Your task to perform on an android device: allow notifications from all sites in the chrome app Image 0: 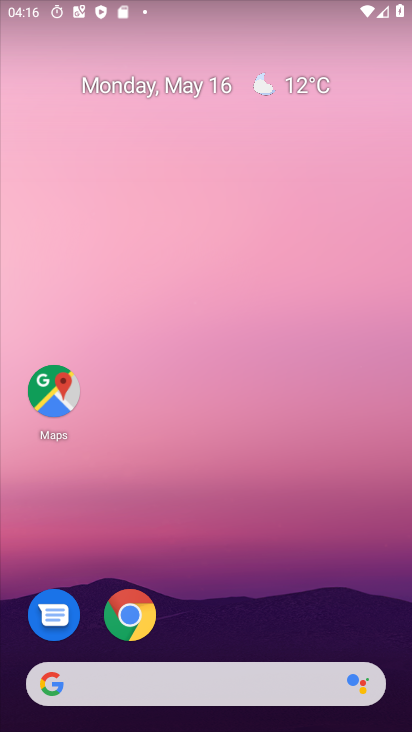
Step 0: drag from (277, 310) to (166, 53)
Your task to perform on an android device: allow notifications from all sites in the chrome app Image 1: 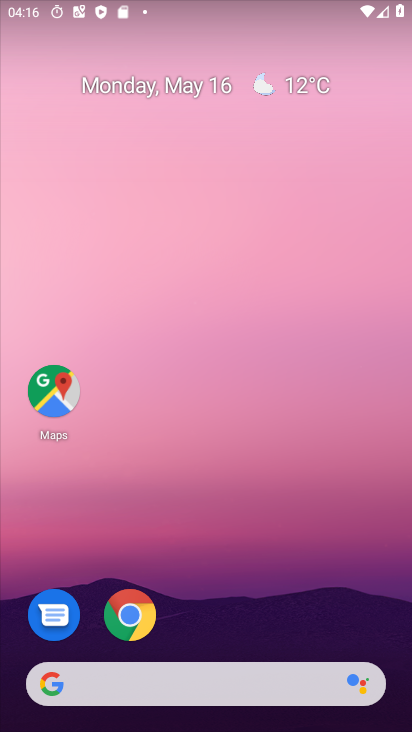
Step 1: drag from (197, 638) to (85, 18)
Your task to perform on an android device: allow notifications from all sites in the chrome app Image 2: 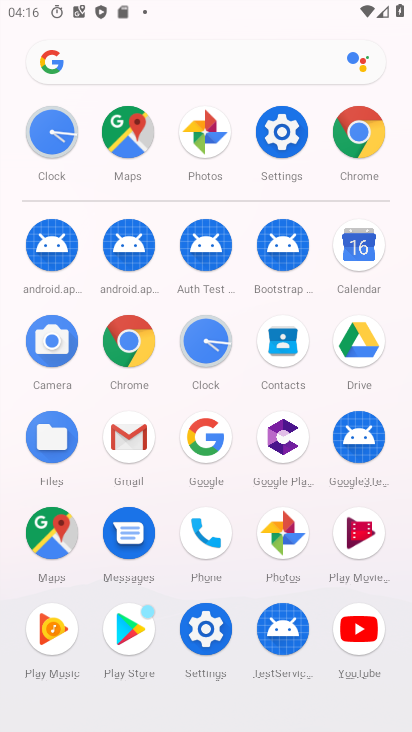
Step 2: click (142, 154)
Your task to perform on an android device: allow notifications from all sites in the chrome app Image 3: 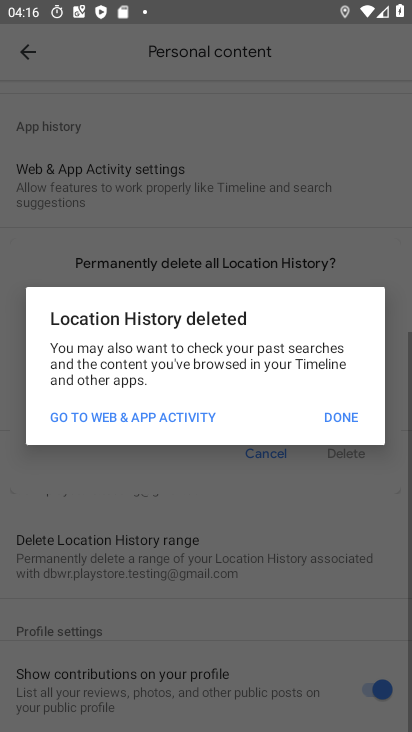
Step 3: click (339, 420)
Your task to perform on an android device: allow notifications from all sites in the chrome app Image 4: 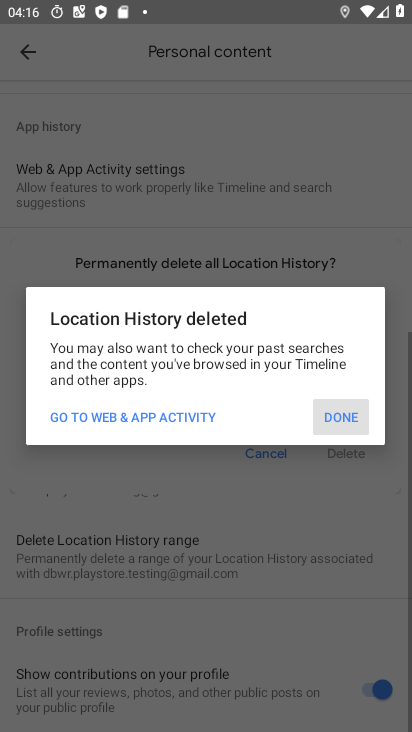
Step 4: click (341, 418)
Your task to perform on an android device: allow notifications from all sites in the chrome app Image 5: 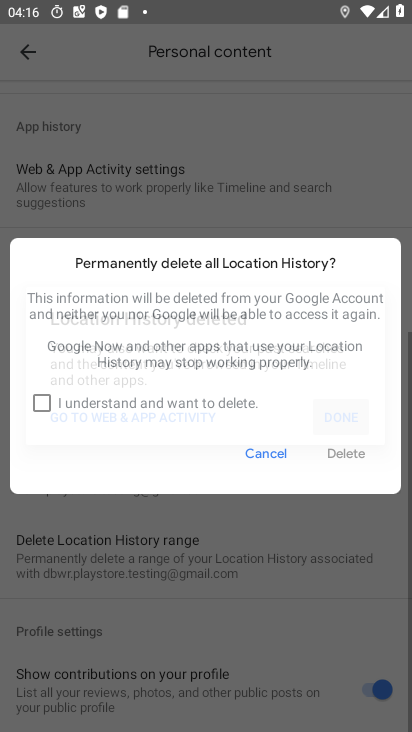
Step 5: click (341, 417)
Your task to perform on an android device: allow notifications from all sites in the chrome app Image 6: 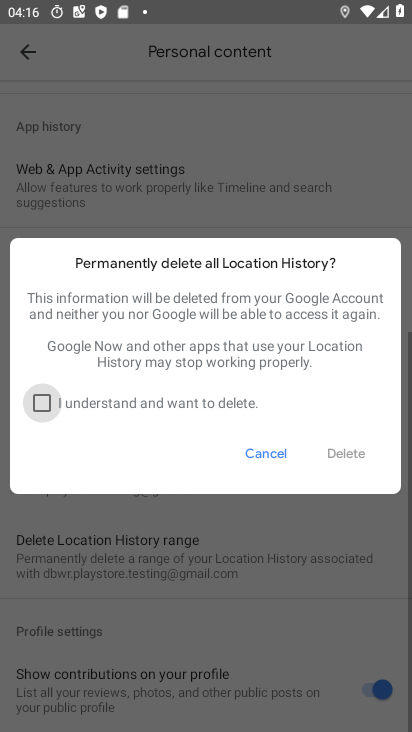
Step 6: click (341, 414)
Your task to perform on an android device: allow notifications from all sites in the chrome app Image 7: 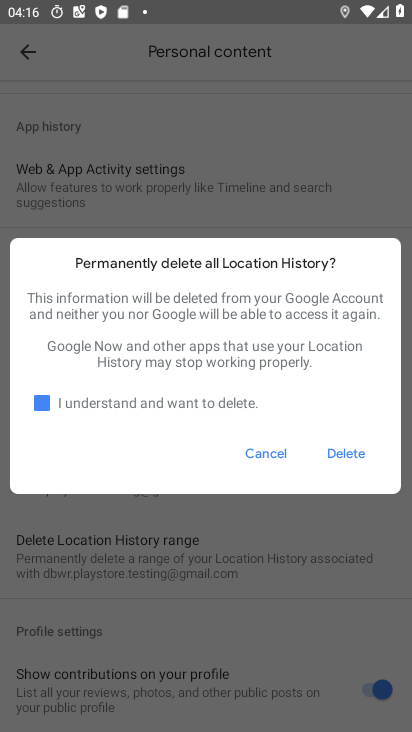
Step 7: click (341, 412)
Your task to perform on an android device: allow notifications from all sites in the chrome app Image 8: 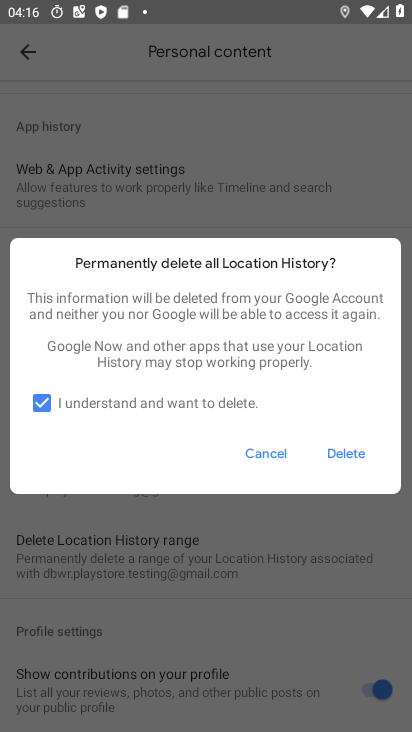
Step 8: click (362, 450)
Your task to perform on an android device: allow notifications from all sites in the chrome app Image 9: 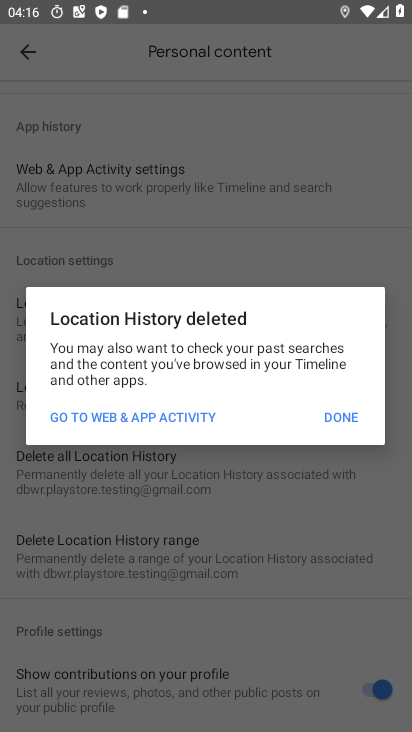
Step 9: click (334, 427)
Your task to perform on an android device: allow notifications from all sites in the chrome app Image 10: 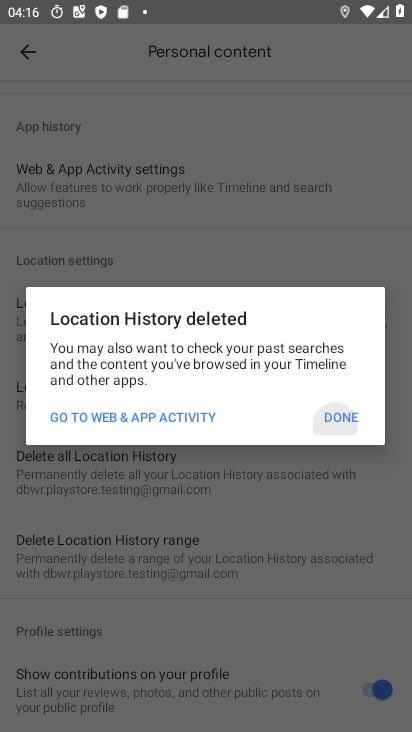
Step 10: click (339, 418)
Your task to perform on an android device: allow notifications from all sites in the chrome app Image 11: 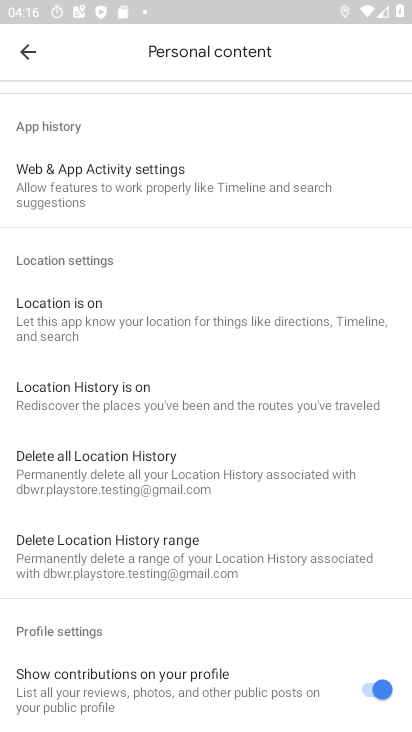
Step 11: click (339, 418)
Your task to perform on an android device: allow notifications from all sites in the chrome app Image 12: 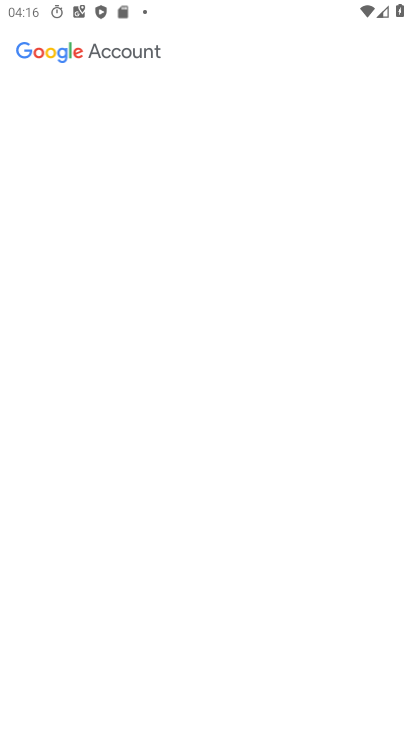
Step 12: press back button
Your task to perform on an android device: allow notifications from all sites in the chrome app Image 13: 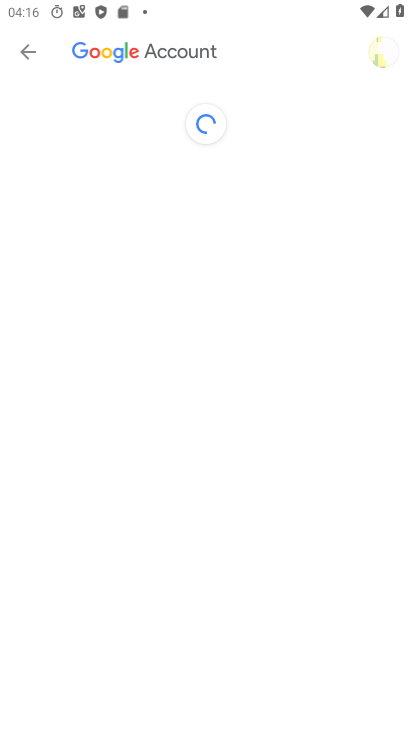
Step 13: press back button
Your task to perform on an android device: allow notifications from all sites in the chrome app Image 14: 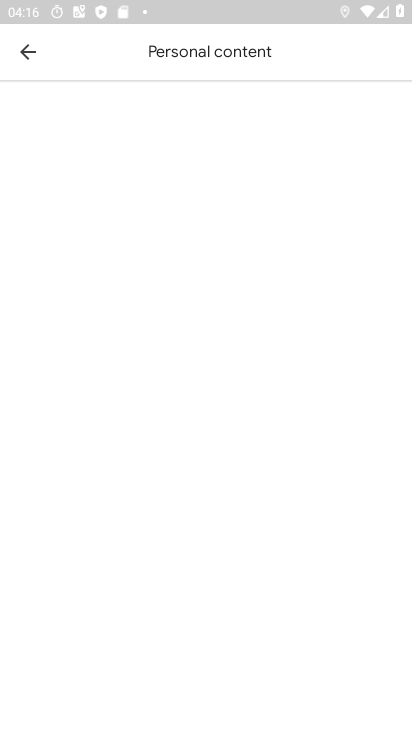
Step 14: click (29, 54)
Your task to perform on an android device: allow notifications from all sites in the chrome app Image 15: 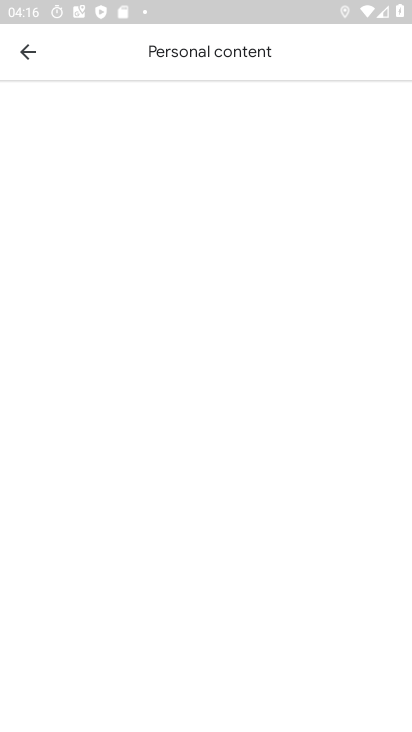
Step 15: click (29, 53)
Your task to perform on an android device: allow notifications from all sites in the chrome app Image 16: 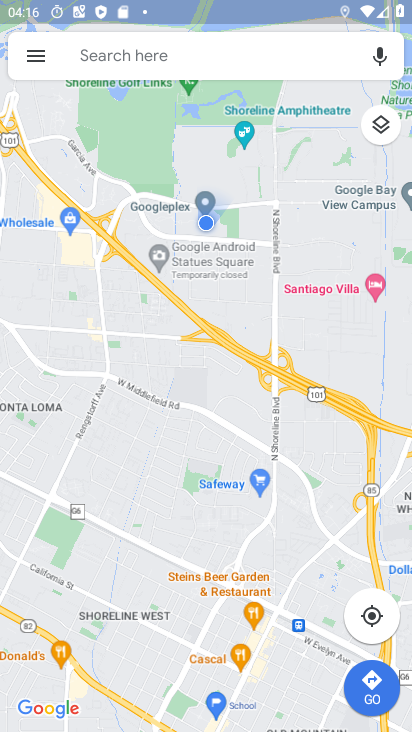
Step 16: click (46, 48)
Your task to perform on an android device: allow notifications from all sites in the chrome app Image 17: 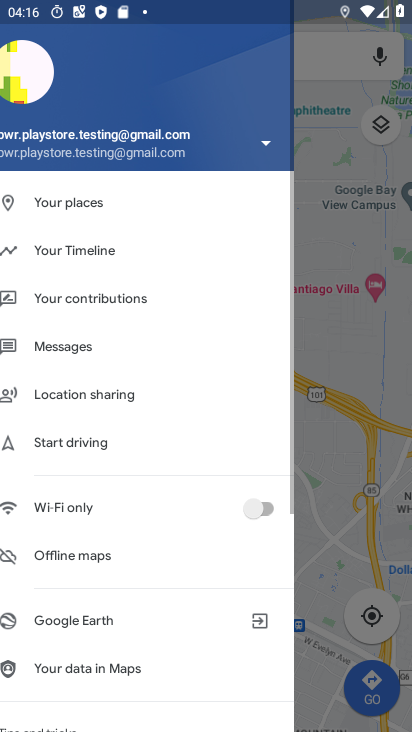
Step 17: click (36, 55)
Your task to perform on an android device: allow notifications from all sites in the chrome app Image 18: 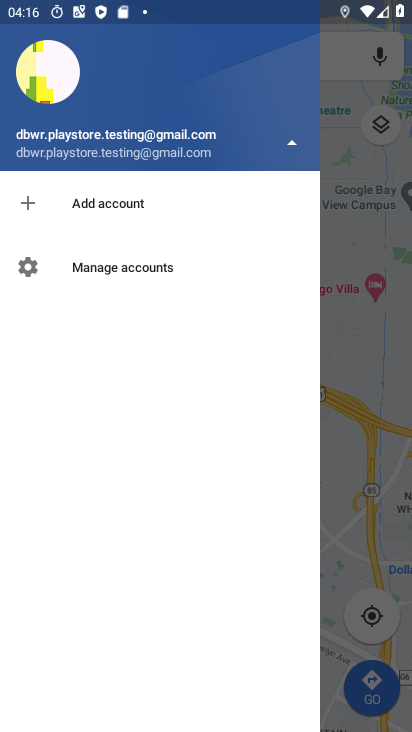
Step 18: click (113, 258)
Your task to perform on an android device: allow notifications from all sites in the chrome app Image 19: 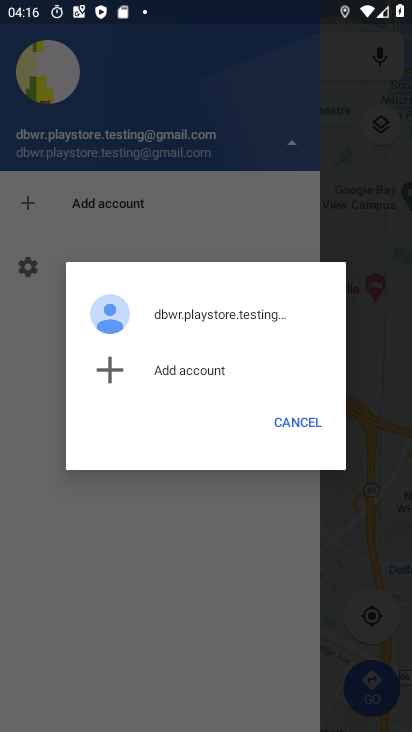
Step 19: click (284, 146)
Your task to perform on an android device: allow notifications from all sites in the chrome app Image 20: 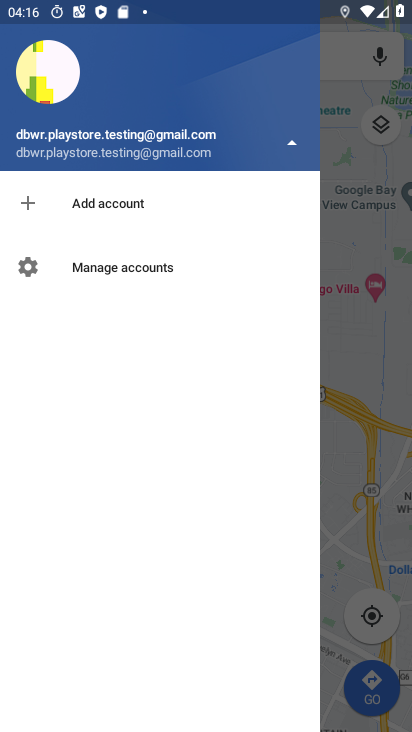
Step 20: click (310, 421)
Your task to perform on an android device: allow notifications from all sites in the chrome app Image 21: 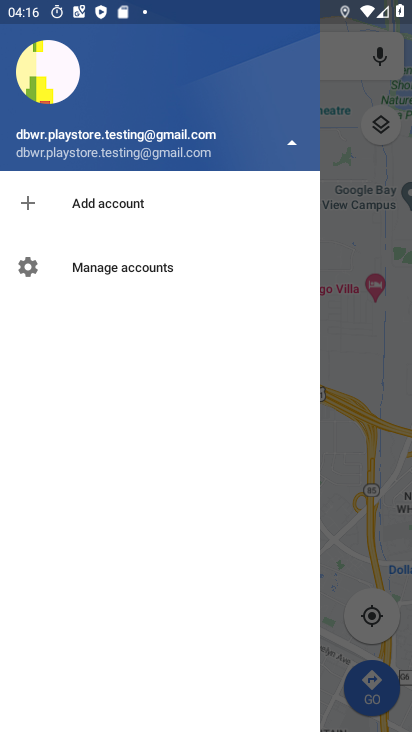
Step 21: click (306, 419)
Your task to perform on an android device: allow notifications from all sites in the chrome app Image 22: 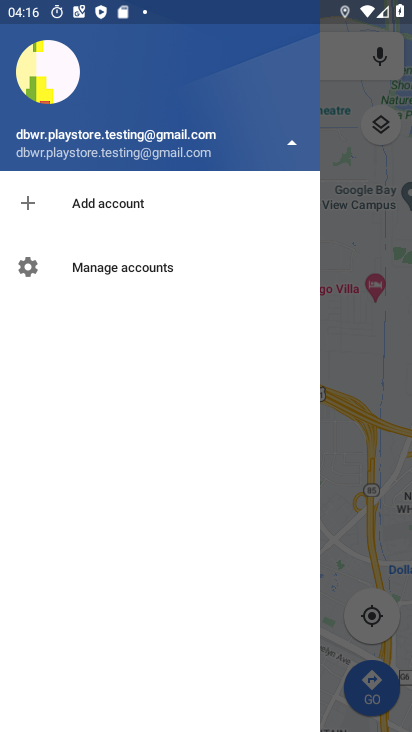
Step 22: click (285, 145)
Your task to perform on an android device: allow notifications from all sites in the chrome app Image 23: 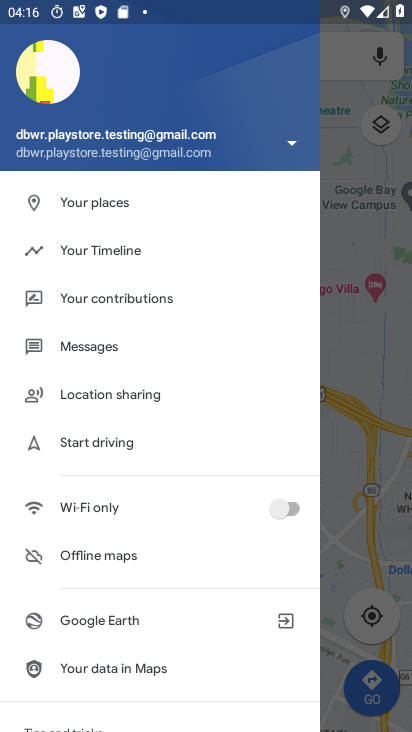
Step 23: press home button
Your task to perform on an android device: allow notifications from all sites in the chrome app Image 24: 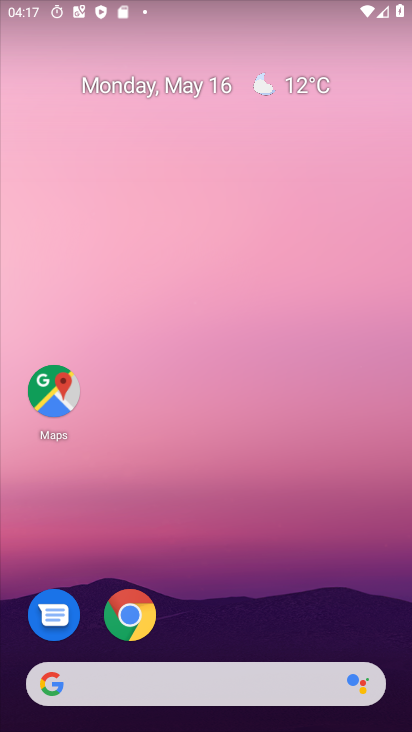
Step 24: drag from (266, 669) to (169, 82)
Your task to perform on an android device: allow notifications from all sites in the chrome app Image 25: 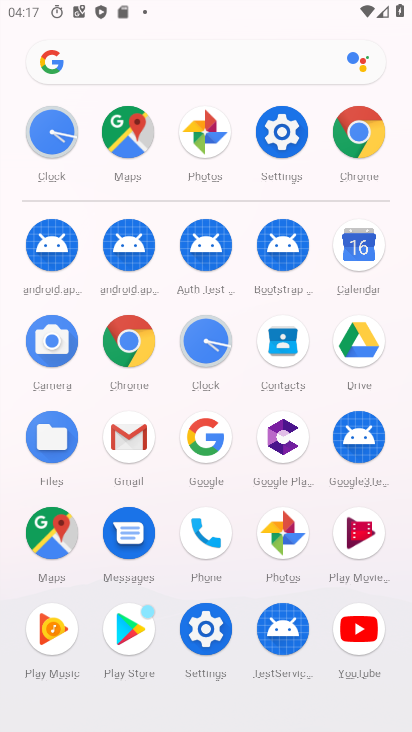
Step 25: click (355, 133)
Your task to perform on an android device: allow notifications from all sites in the chrome app Image 26: 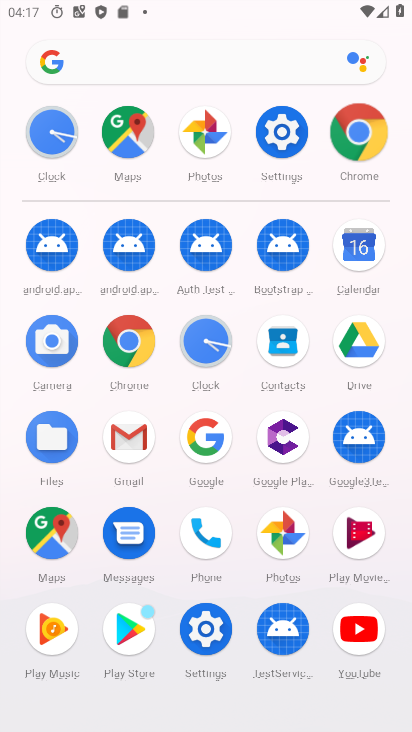
Step 26: click (354, 133)
Your task to perform on an android device: allow notifications from all sites in the chrome app Image 27: 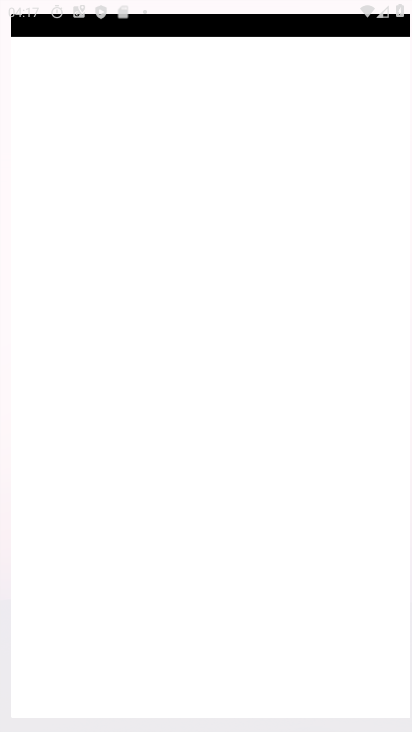
Step 27: click (353, 133)
Your task to perform on an android device: allow notifications from all sites in the chrome app Image 28: 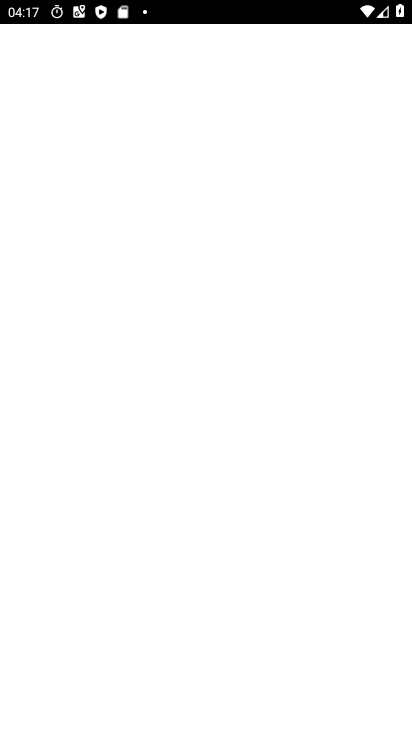
Step 28: click (352, 133)
Your task to perform on an android device: allow notifications from all sites in the chrome app Image 29: 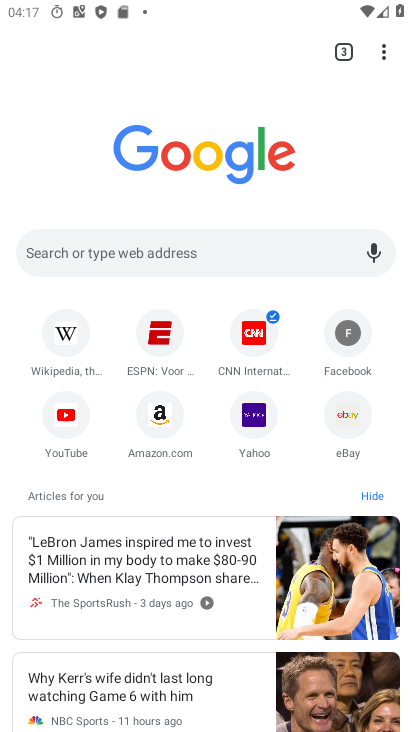
Step 29: drag from (378, 52) to (184, 481)
Your task to perform on an android device: allow notifications from all sites in the chrome app Image 30: 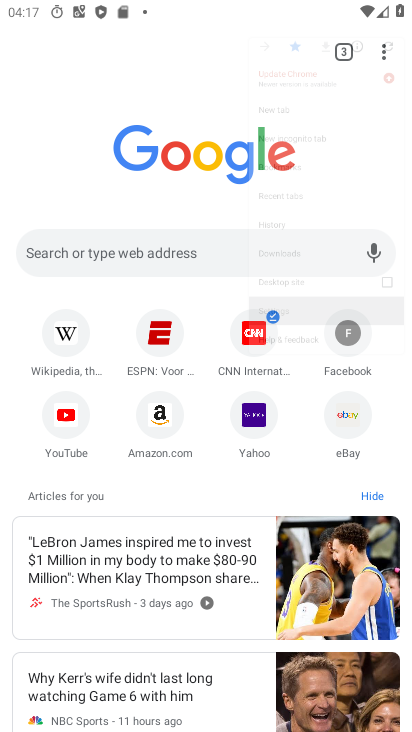
Step 30: click (187, 480)
Your task to perform on an android device: allow notifications from all sites in the chrome app Image 31: 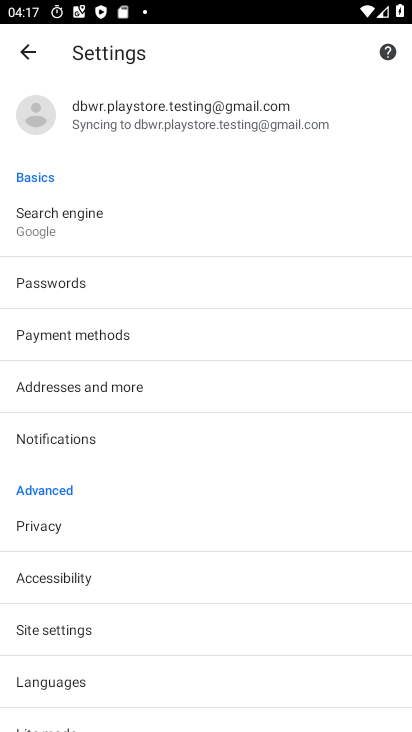
Step 31: drag from (159, 514) to (145, 22)
Your task to perform on an android device: allow notifications from all sites in the chrome app Image 32: 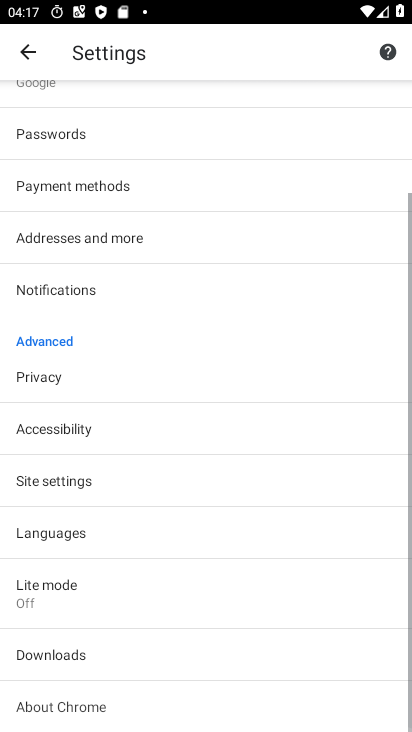
Step 32: drag from (233, 531) to (140, 58)
Your task to perform on an android device: allow notifications from all sites in the chrome app Image 33: 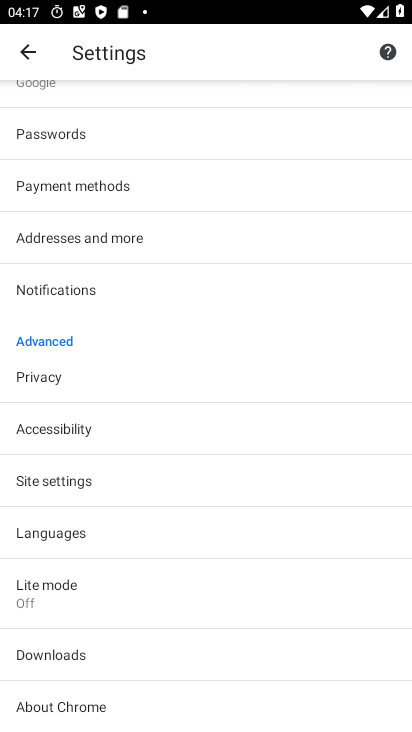
Step 33: click (36, 481)
Your task to perform on an android device: allow notifications from all sites in the chrome app Image 34: 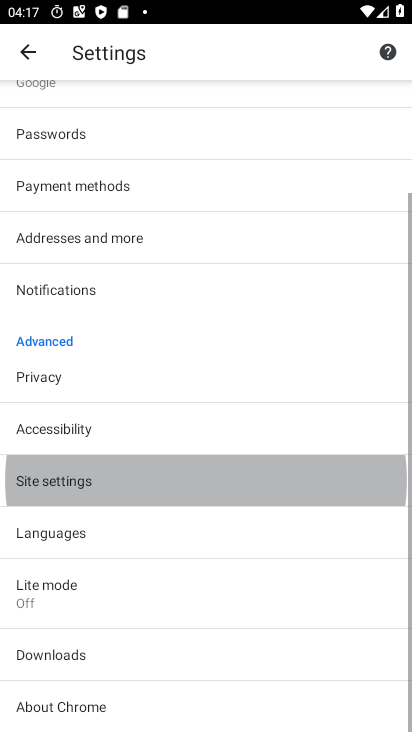
Step 34: click (36, 481)
Your task to perform on an android device: allow notifications from all sites in the chrome app Image 35: 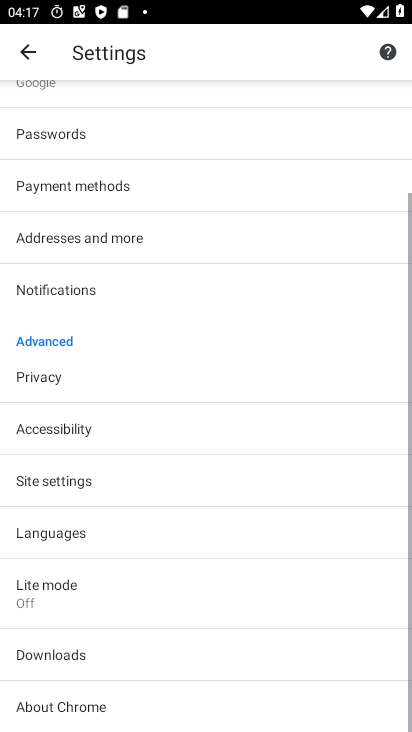
Step 35: click (36, 482)
Your task to perform on an android device: allow notifications from all sites in the chrome app Image 36: 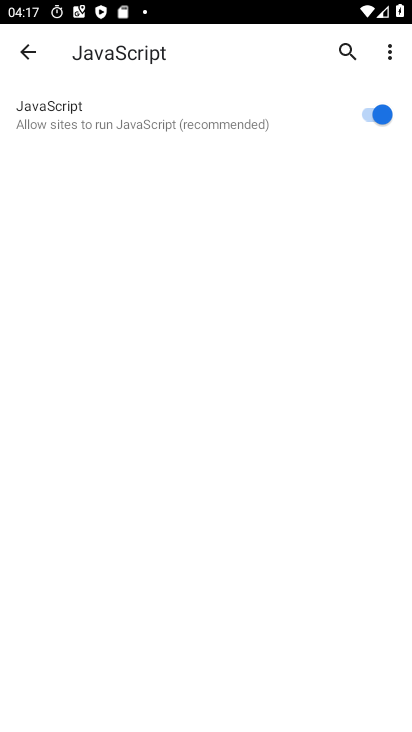
Step 36: click (22, 43)
Your task to perform on an android device: allow notifications from all sites in the chrome app Image 37: 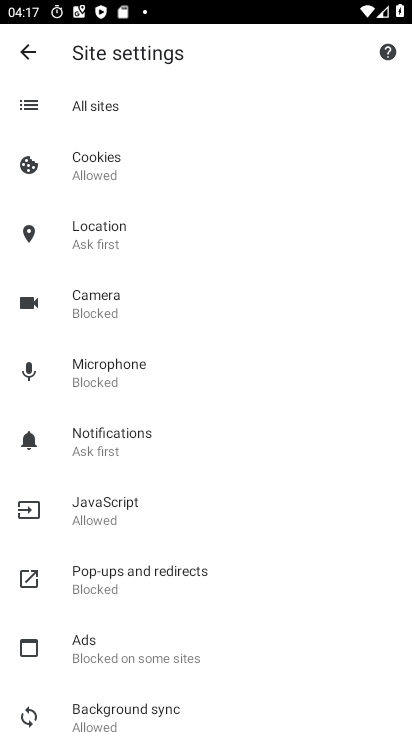
Step 37: click (92, 103)
Your task to perform on an android device: allow notifications from all sites in the chrome app Image 38: 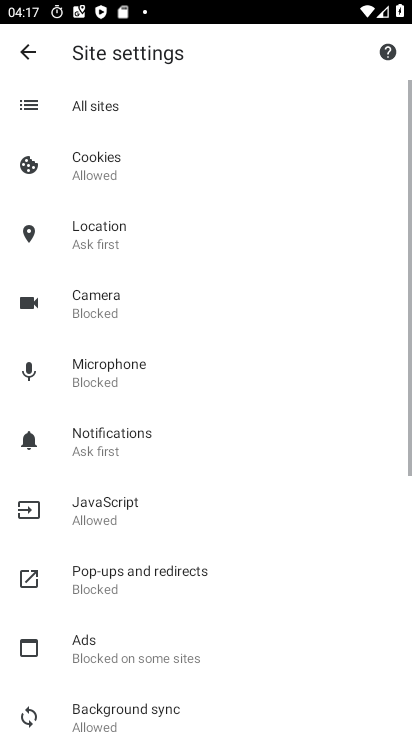
Step 38: click (93, 101)
Your task to perform on an android device: allow notifications from all sites in the chrome app Image 39: 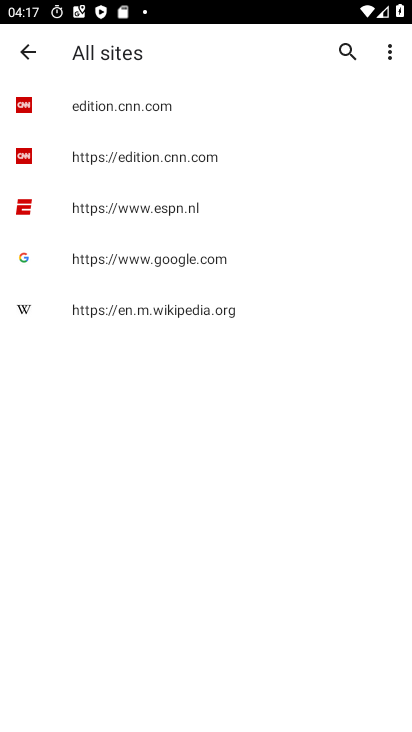
Step 39: click (95, 102)
Your task to perform on an android device: allow notifications from all sites in the chrome app Image 40: 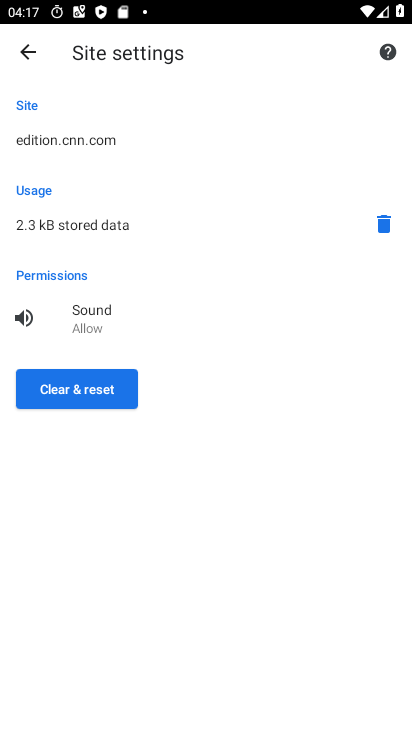
Step 40: click (132, 104)
Your task to perform on an android device: allow notifications from all sites in the chrome app Image 41: 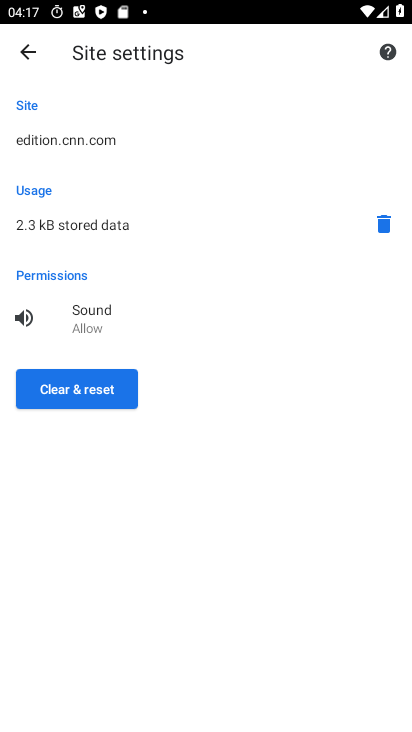
Step 41: click (66, 387)
Your task to perform on an android device: allow notifications from all sites in the chrome app Image 42: 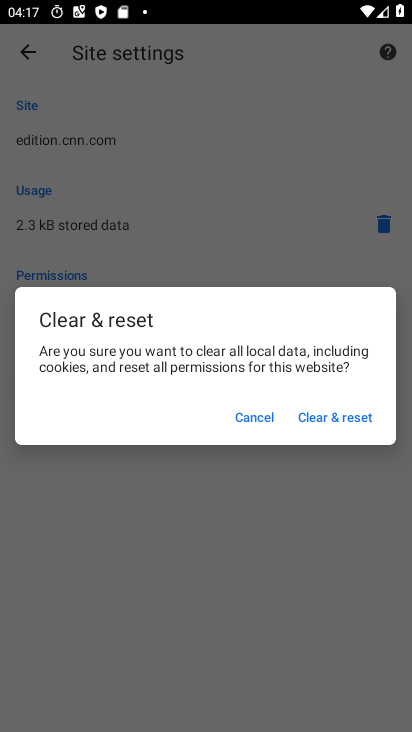
Step 42: click (335, 415)
Your task to perform on an android device: allow notifications from all sites in the chrome app Image 43: 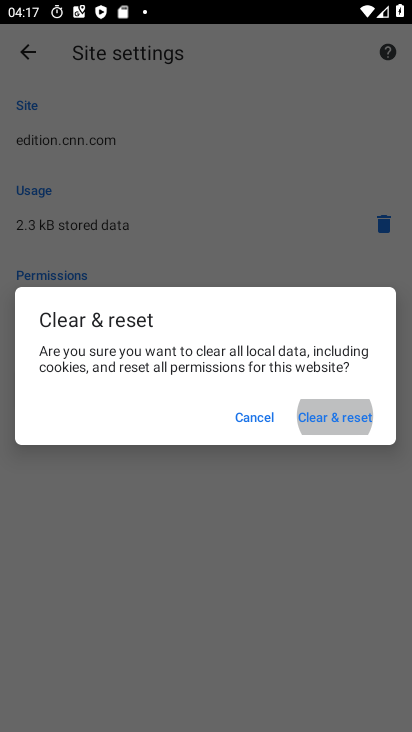
Step 43: click (337, 413)
Your task to perform on an android device: allow notifications from all sites in the chrome app Image 44: 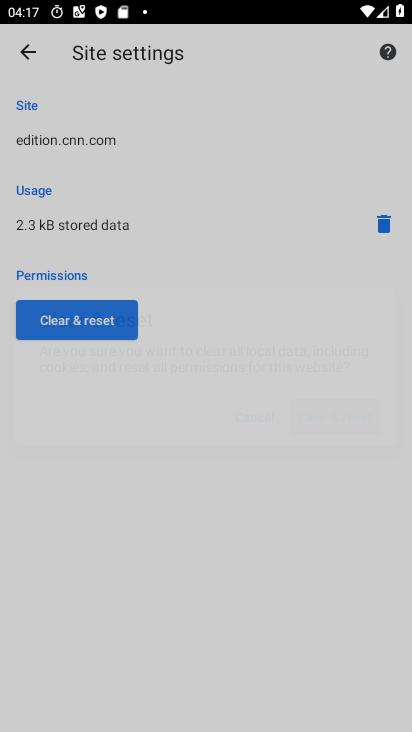
Step 44: click (337, 410)
Your task to perform on an android device: allow notifications from all sites in the chrome app Image 45: 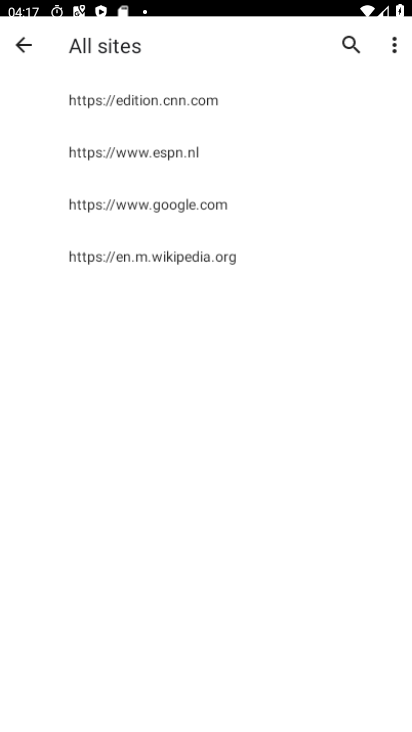
Step 45: click (337, 410)
Your task to perform on an android device: allow notifications from all sites in the chrome app Image 46: 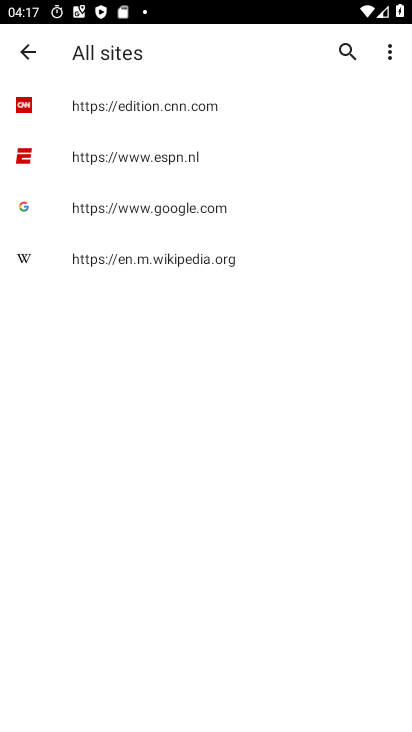
Step 46: click (335, 412)
Your task to perform on an android device: allow notifications from all sites in the chrome app Image 47: 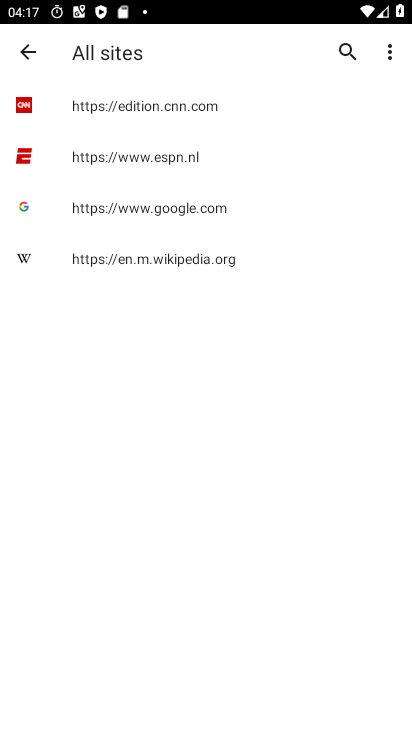
Step 47: task complete